Your task to perform on an android device: Set the phone to "Do not disturb". Image 0: 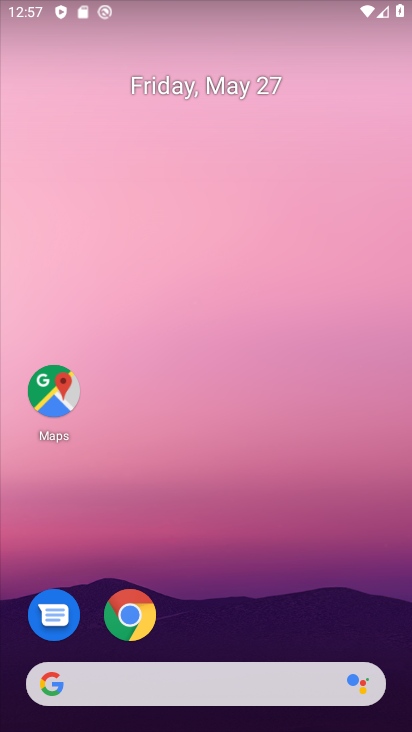
Step 0: drag from (255, 606) to (297, 210)
Your task to perform on an android device: Set the phone to "Do not disturb". Image 1: 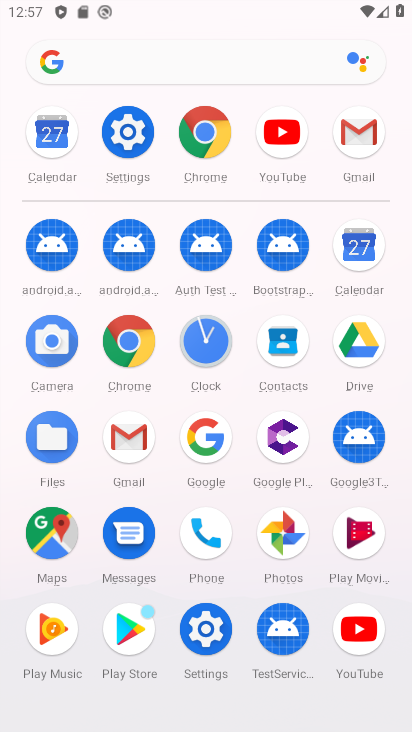
Step 1: click (209, 648)
Your task to perform on an android device: Set the phone to "Do not disturb". Image 2: 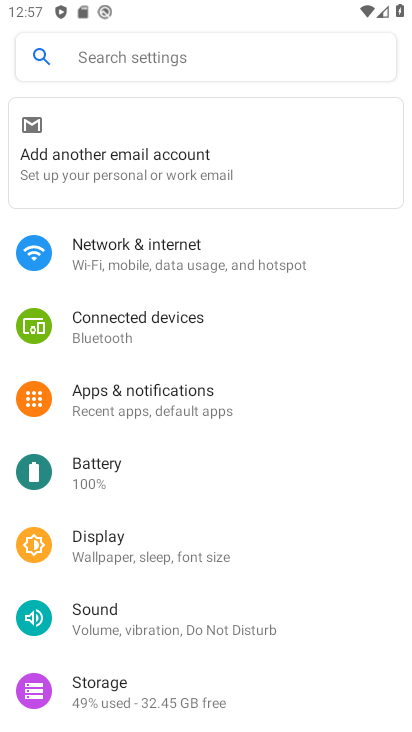
Step 2: drag from (227, 557) to (284, 297)
Your task to perform on an android device: Set the phone to "Do not disturb". Image 3: 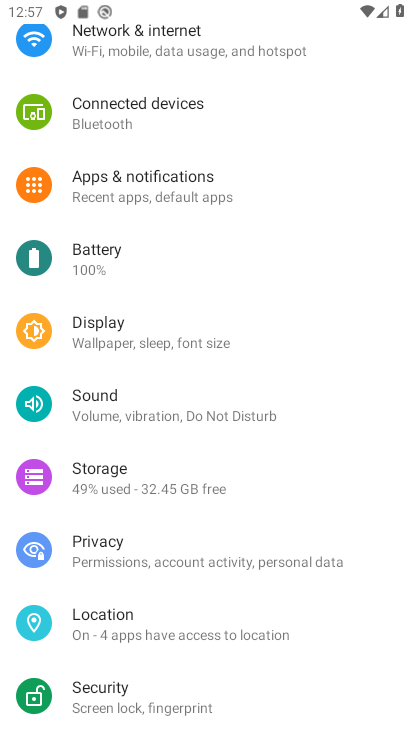
Step 3: click (256, 409)
Your task to perform on an android device: Set the phone to "Do not disturb". Image 4: 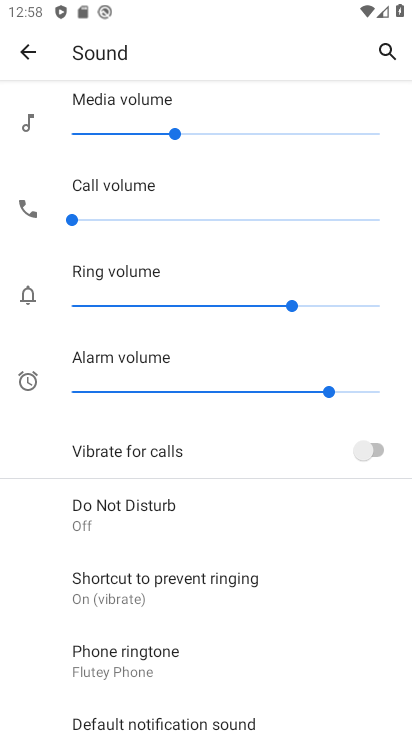
Step 4: drag from (138, 629) to (140, 525)
Your task to perform on an android device: Set the phone to "Do not disturb". Image 5: 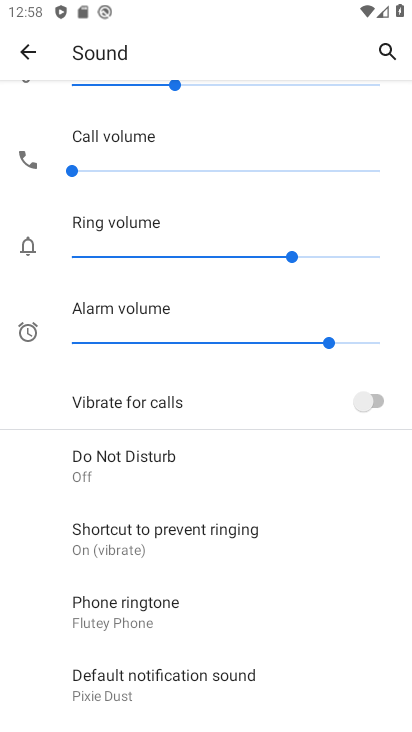
Step 5: click (144, 470)
Your task to perform on an android device: Set the phone to "Do not disturb". Image 6: 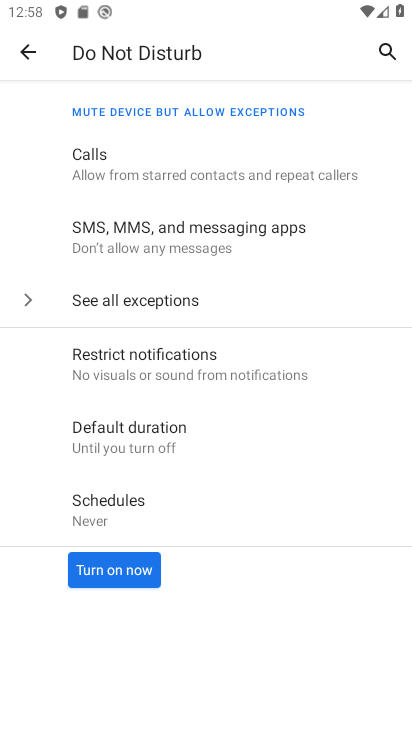
Step 6: click (130, 569)
Your task to perform on an android device: Set the phone to "Do not disturb". Image 7: 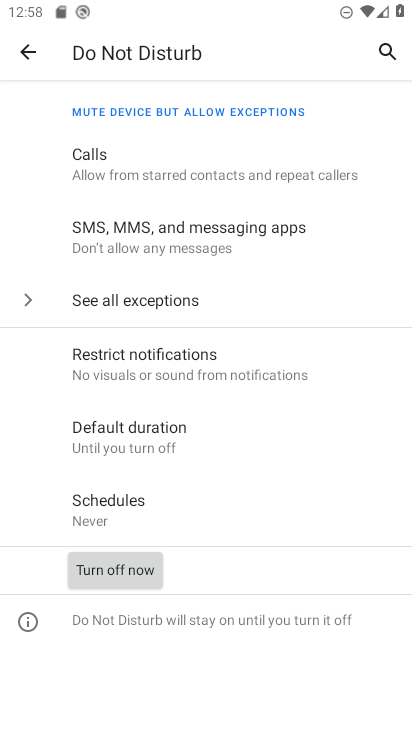
Step 7: task complete